Your task to perform on an android device: toggle improve location accuracy Image 0: 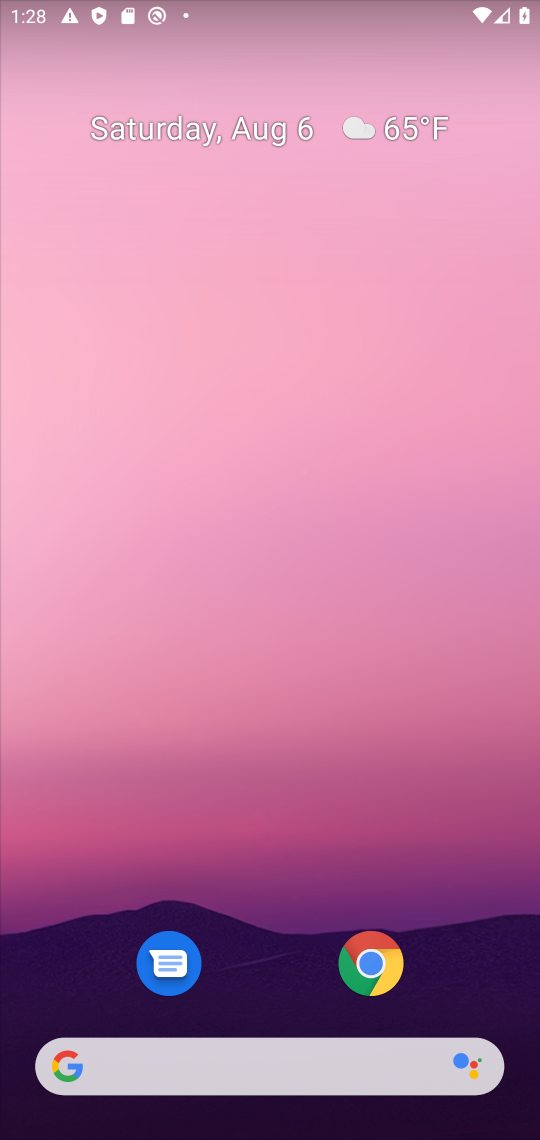
Step 0: drag from (241, 755) to (430, 92)
Your task to perform on an android device: toggle improve location accuracy Image 1: 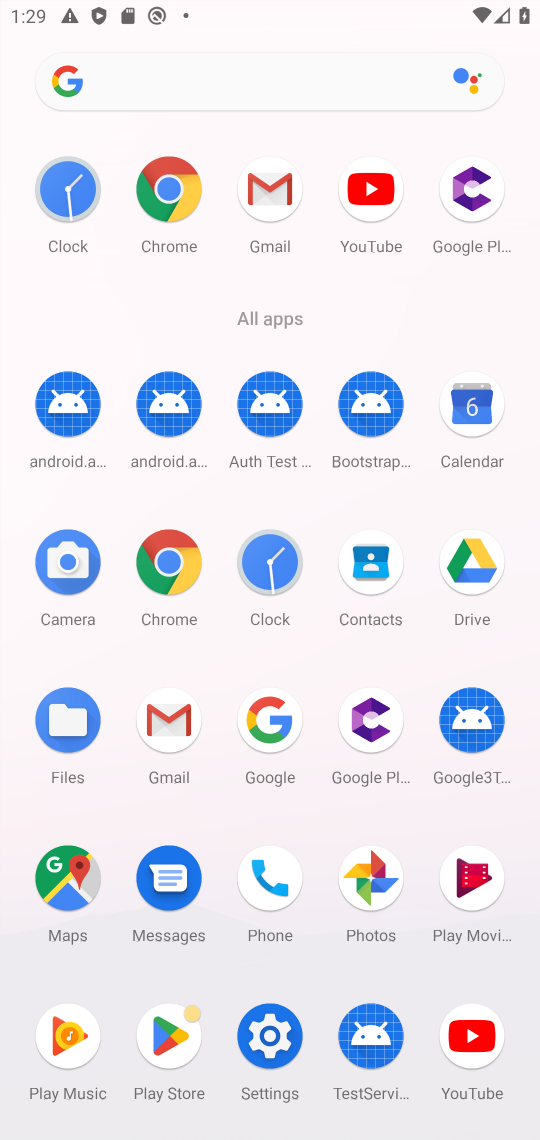
Step 1: click (44, 886)
Your task to perform on an android device: toggle improve location accuracy Image 2: 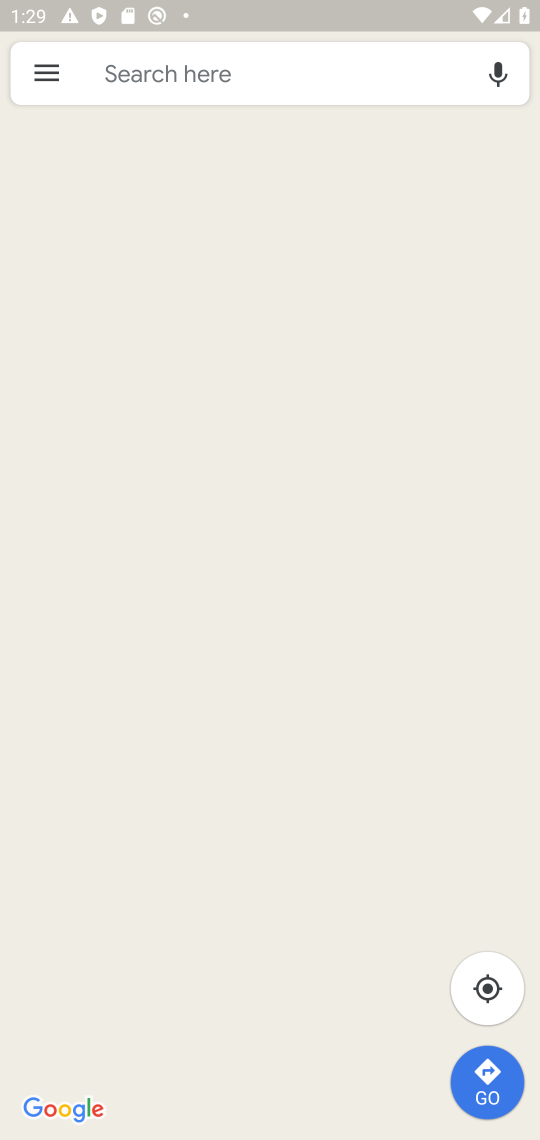
Step 2: click (38, 88)
Your task to perform on an android device: toggle improve location accuracy Image 3: 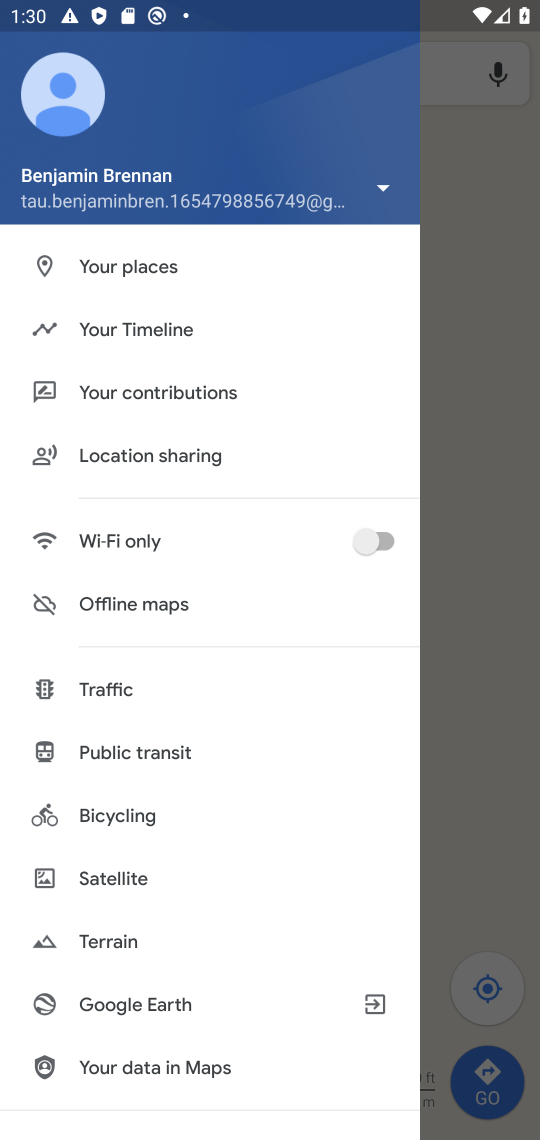
Step 3: click (228, 335)
Your task to perform on an android device: toggle improve location accuracy Image 4: 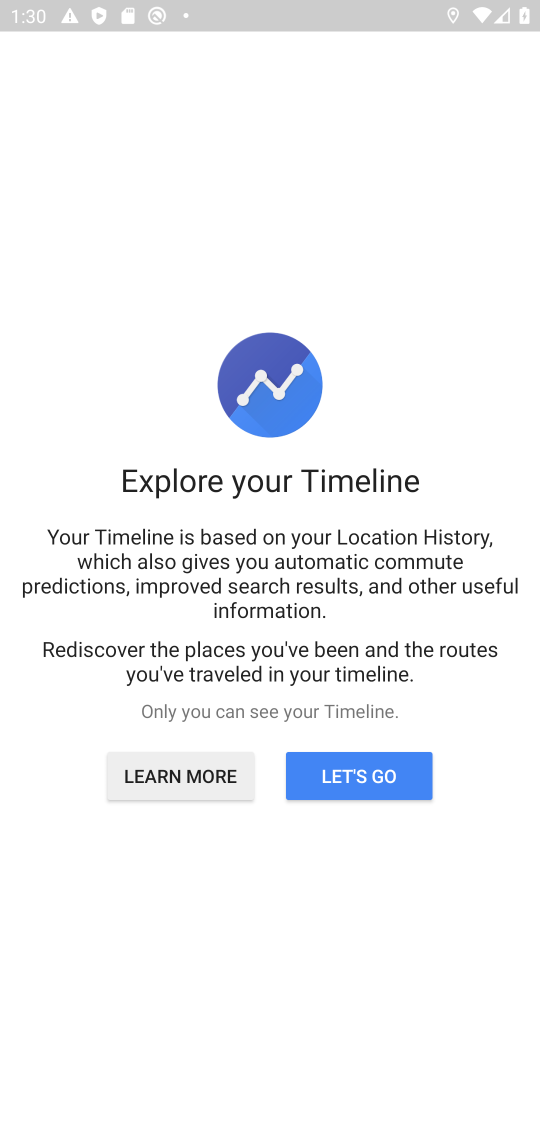
Step 4: click (383, 775)
Your task to perform on an android device: toggle improve location accuracy Image 5: 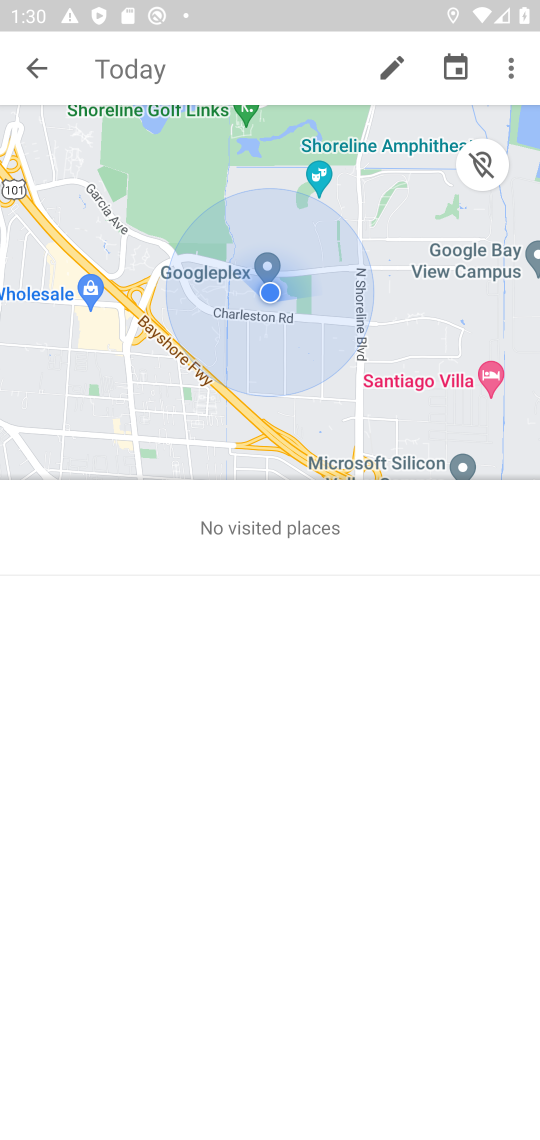
Step 5: click (49, 62)
Your task to perform on an android device: toggle improve location accuracy Image 6: 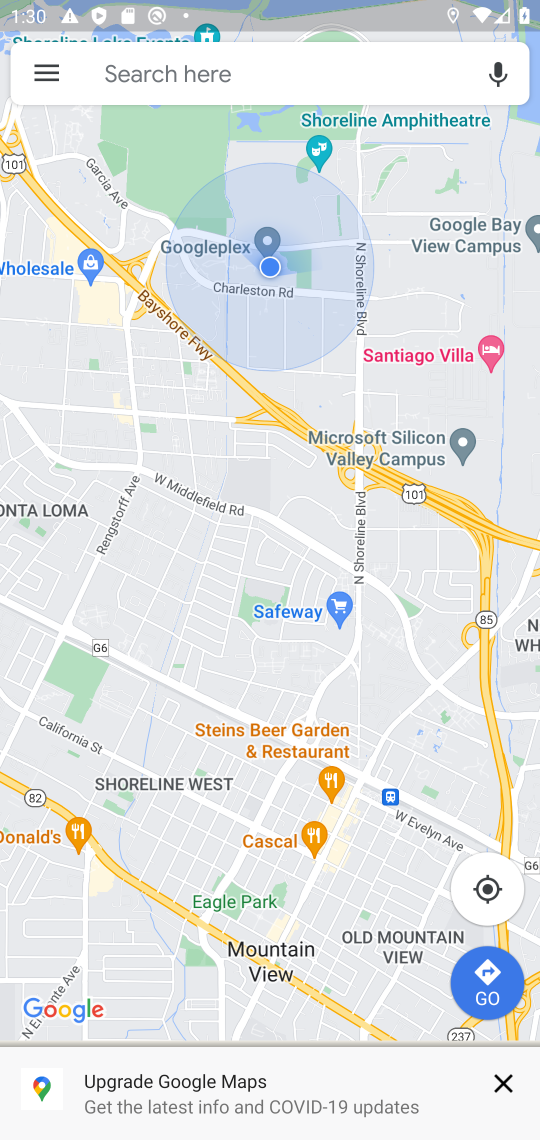
Step 6: click (39, 75)
Your task to perform on an android device: toggle improve location accuracy Image 7: 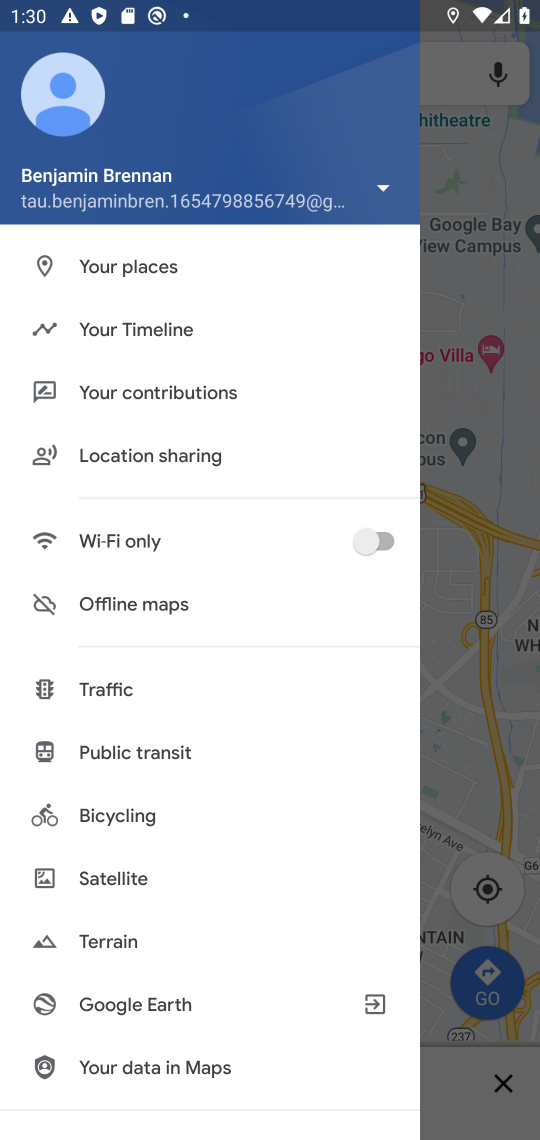
Step 7: drag from (119, 975) to (515, 769)
Your task to perform on an android device: toggle improve location accuracy Image 8: 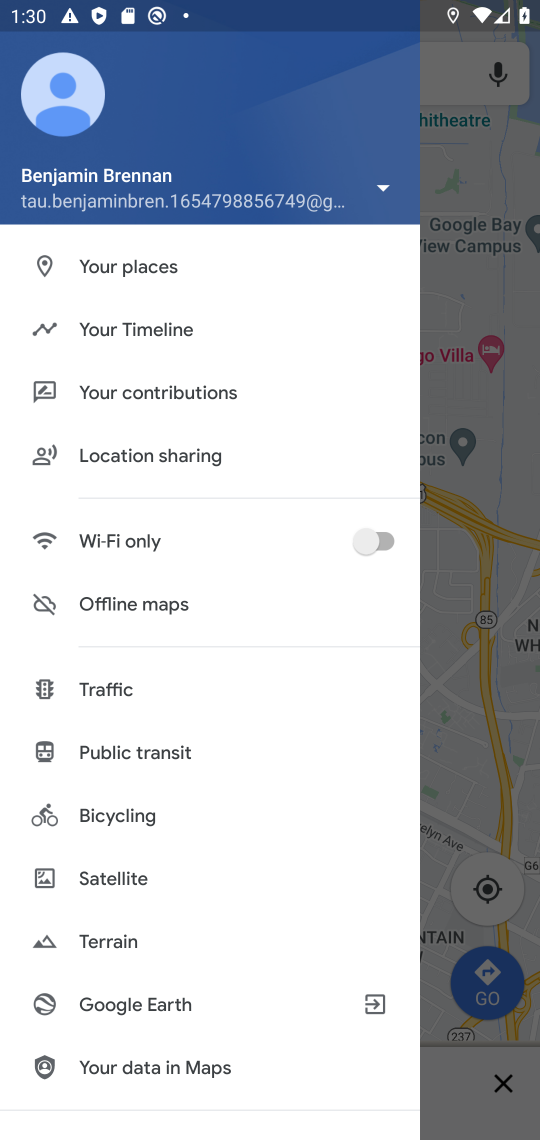
Step 8: drag from (149, 1052) to (193, 422)
Your task to perform on an android device: toggle improve location accuracy Image 9: 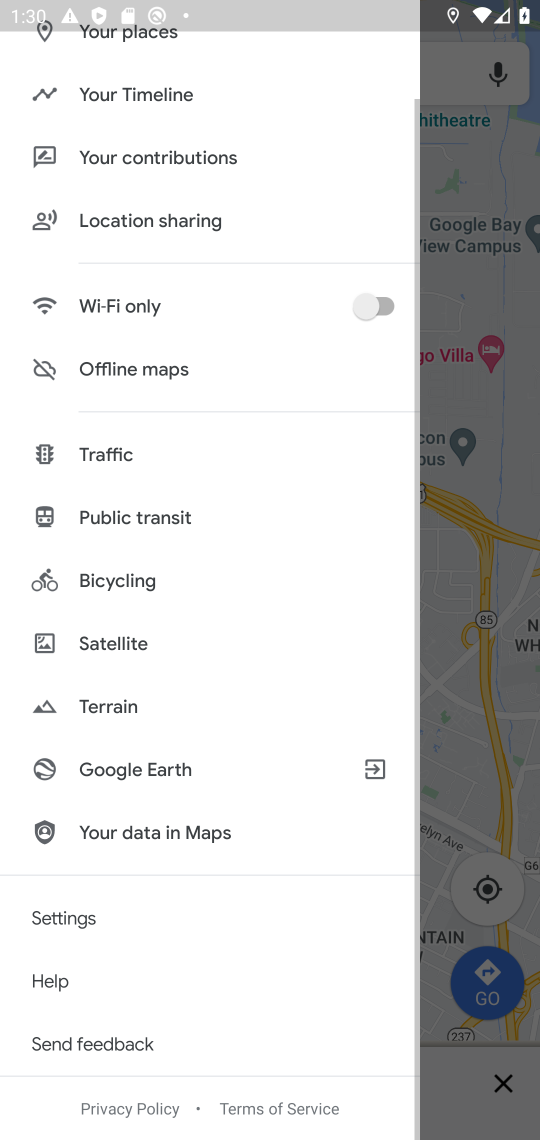
Step 9: drag from (132, 920) to (130, 523)
Your task to perform on an android device: toggle improve location accuracy Image 10: 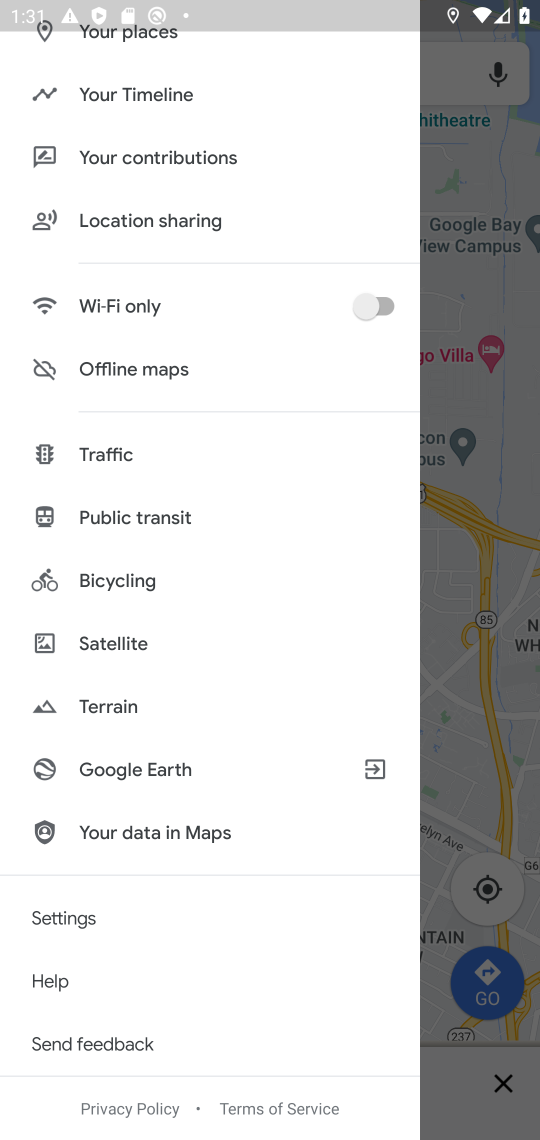
Step 10: click (63, 900)
Your task to perform on an android device: toggle improve location accuracy Image 11: 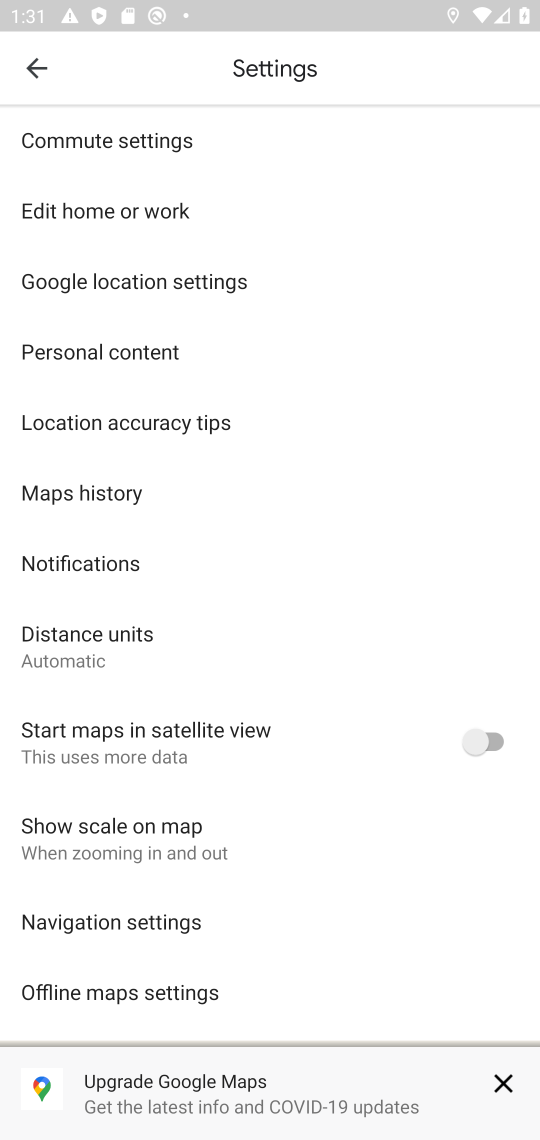
Step 11: click (225, 267)
Your task to perform on an android device: toggle improve location accuracy Image 12: 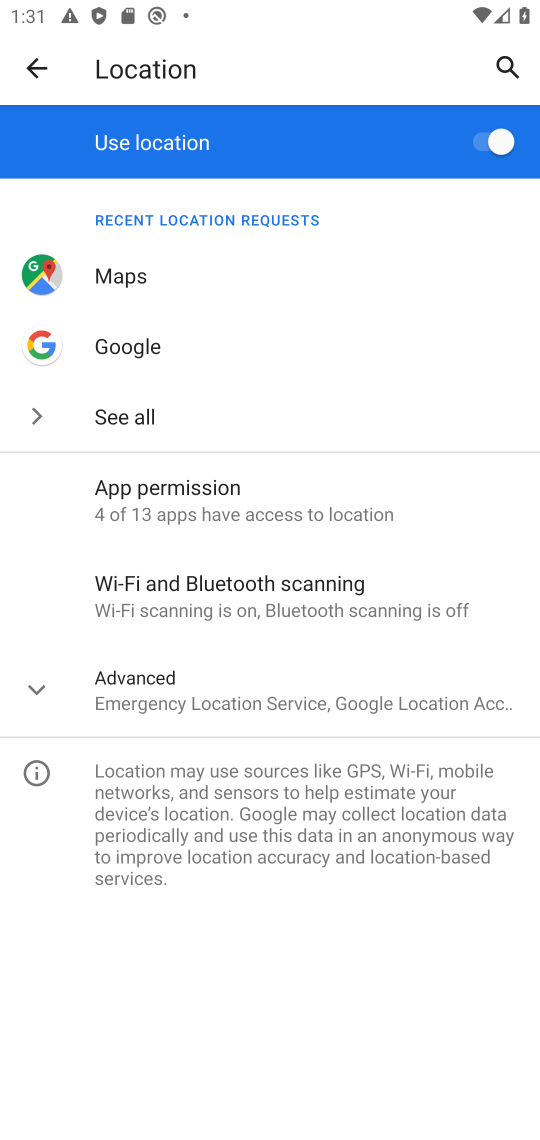
Step 12: click (374, 693)
Your task to perform on an android device: toggle improve location accuracy Image 13: 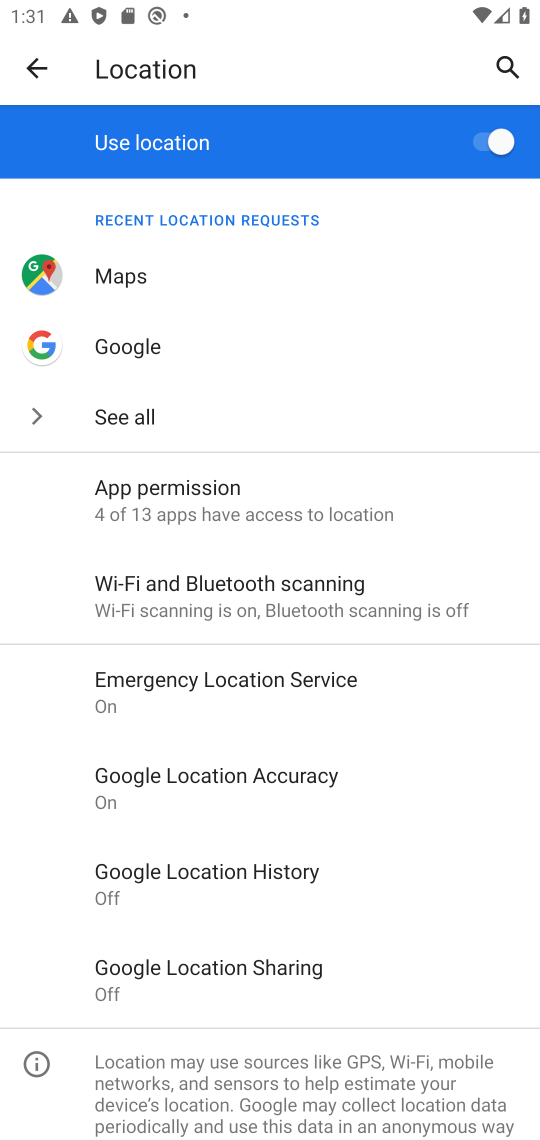
Step 13: click (298, 772)
Your task to perform on an android device: toggle improve location accuracy Image 14: 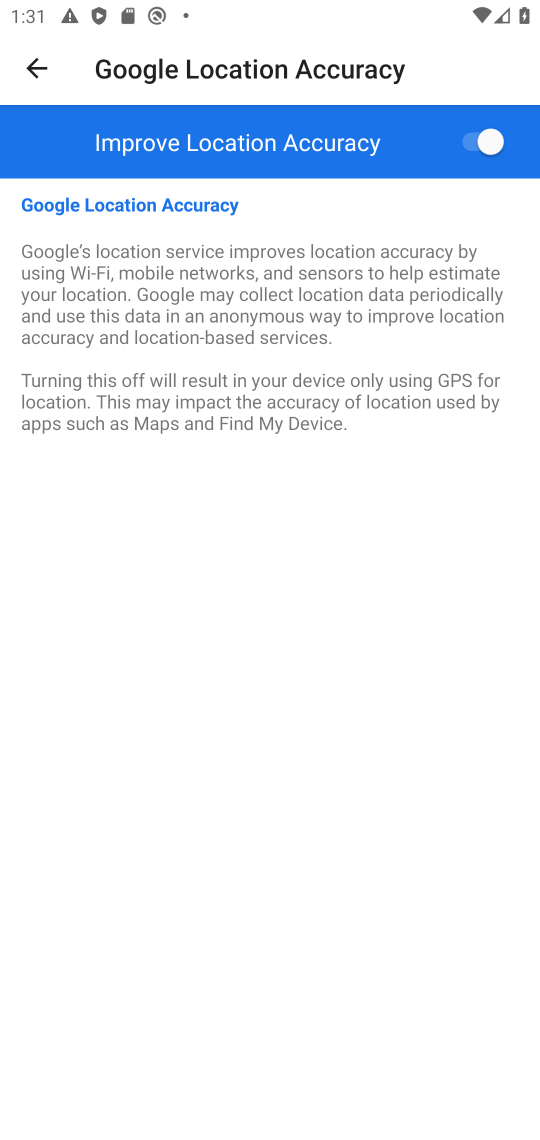
Step 14: click (481, 131)
Your task to perform on an android device: toggle improve location accuracy Image 15: 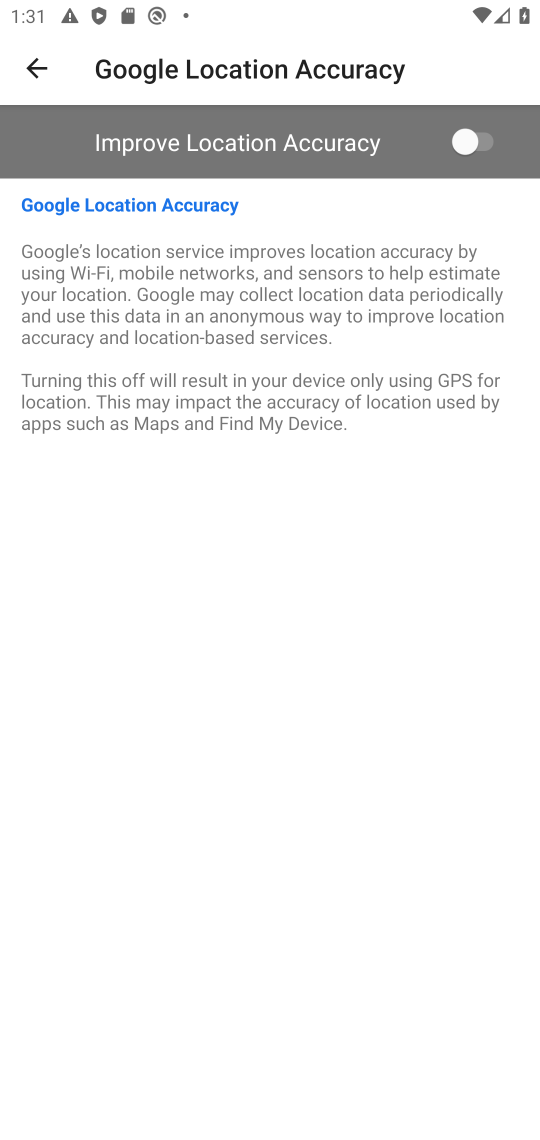
Step 15: task complete